Your task to perform on an android device: Open maps Image 0: 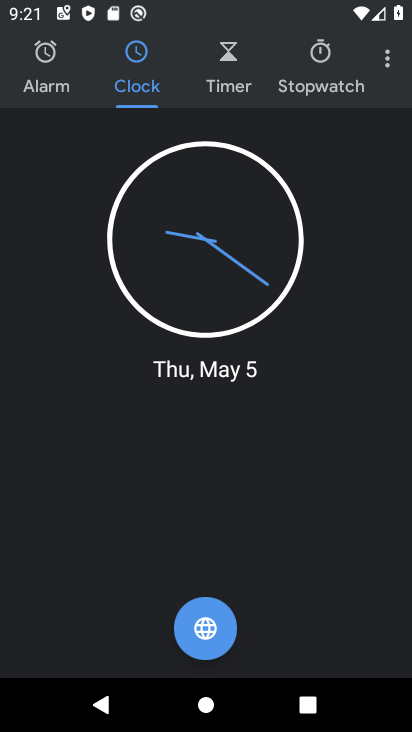
Step 0: press home button
Your task to perform on an android device: Open maps Image 1: 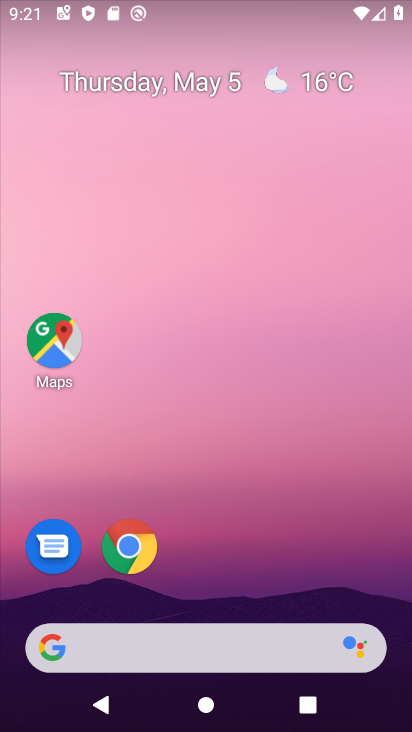
Step 1: drag from (222, 587) to (266, 128)
Your task to perform on an android device: Open maps Image 2: 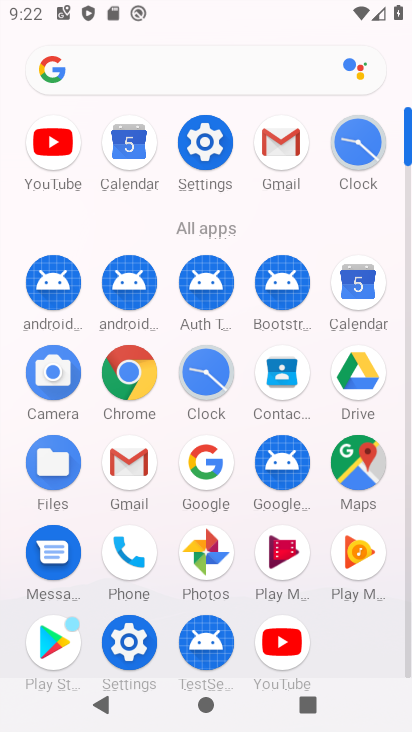
Step 2: click (355, 445)
Your task to perform on an android device: Open maps Image 3: 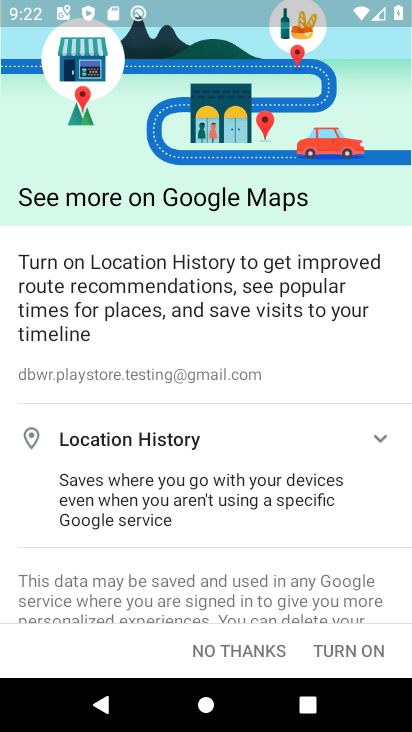
Step 3: click (230, 643)
Your task to perform on an android device: Open maps Image 4: 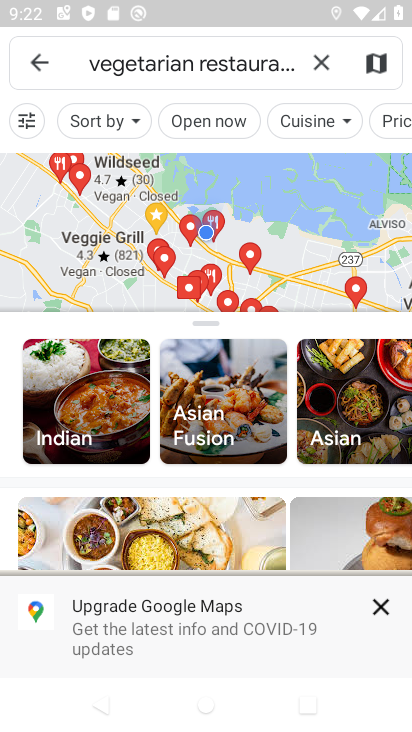
Step 4: click (38, 66)
Your task to perform on an android device: Open maps Image 5: 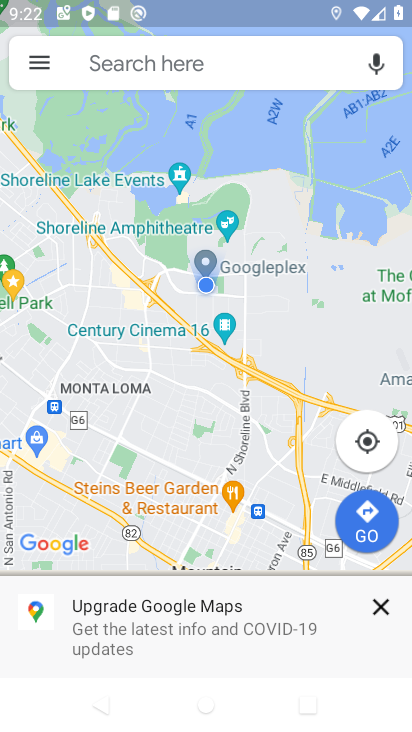
Step 5: task complete